Your task to perform on an android device: Do I have any events tomorrow? Image 0: 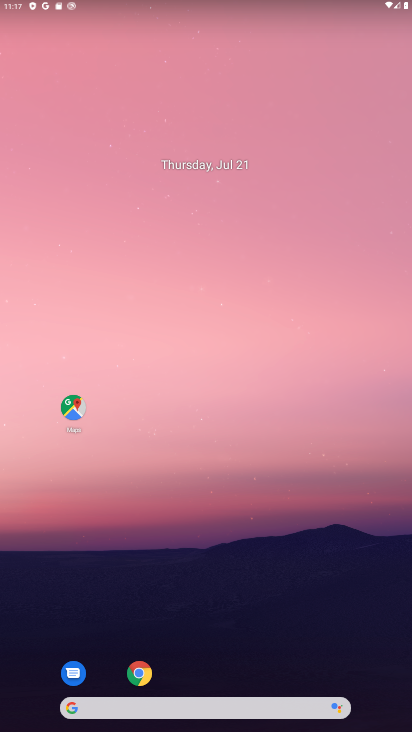
Step 0: drag from (213, 650) to (190, 78)
Your task to perform on an android device: Do I have any events tomorrow? Image 1: 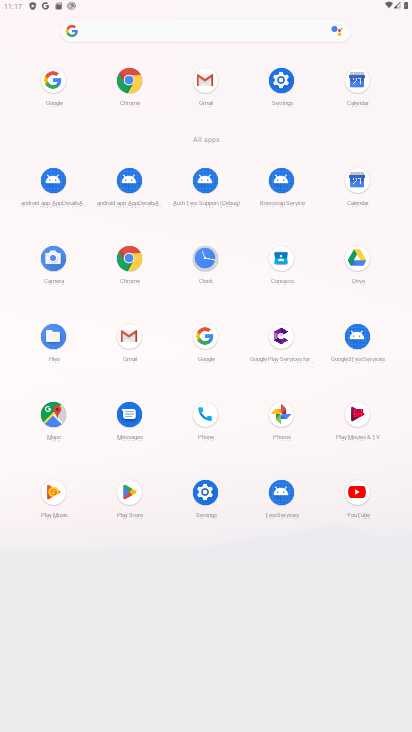
Step 1: click (352, 176)
Your task to perform on an android device: Do I have any events tomorrow? Image 2: 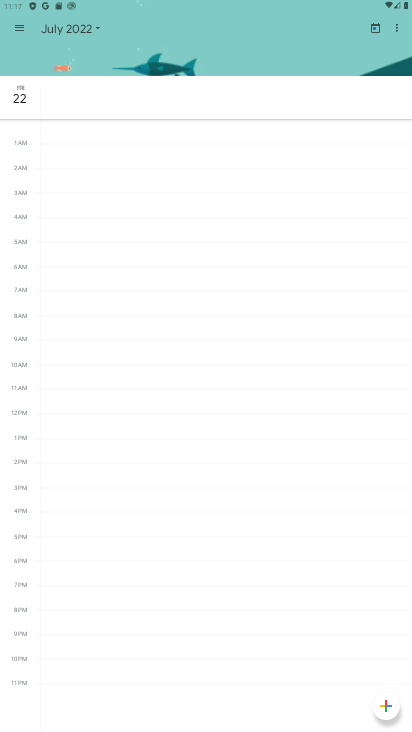
Step 2: click (18, 31)
Your task to perform on an android device: Do I have any events tomorrow? Image 3: 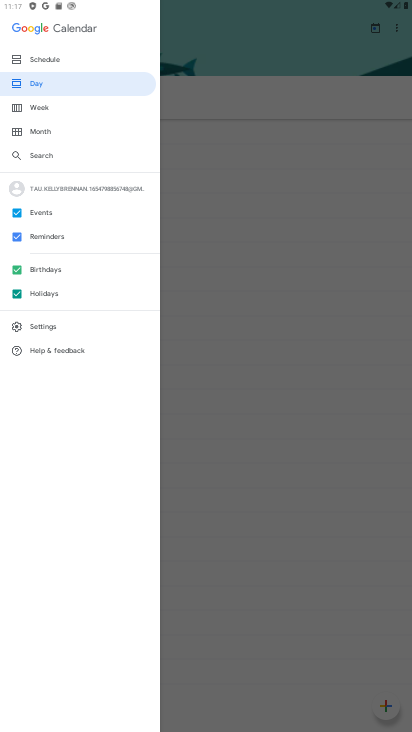
Step 3: click (15, 232)
Your task to perform on an android device: Do I have any events tomorrow? Image 4: 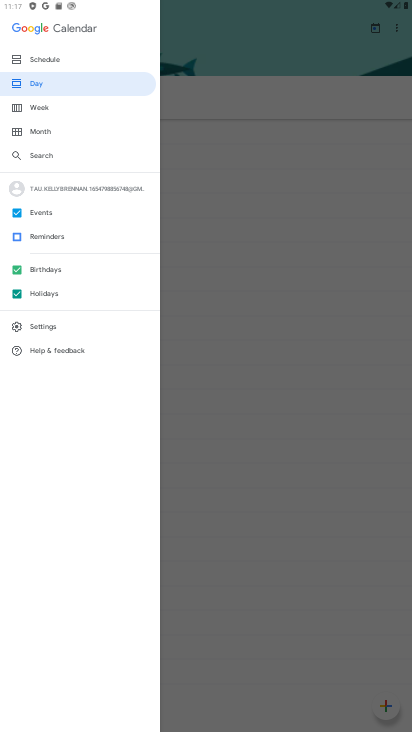
Step 4: click (14, 266)
Your task to perform on an android device: Do I have any events tomorrow? Image 5: 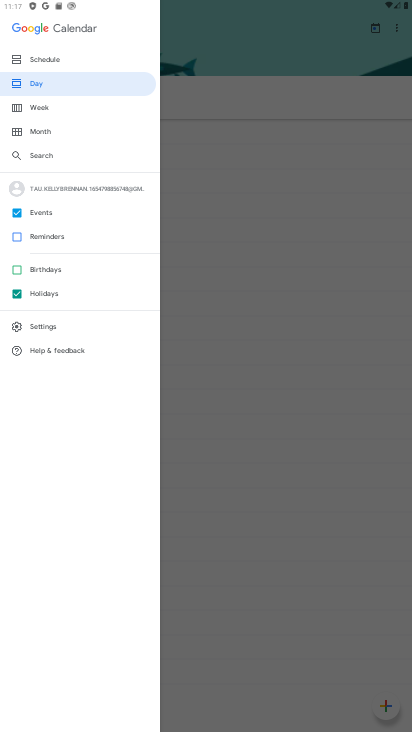
Step 5: click (16, 294)
Your task to perform on an android device: Do I have any events tomorrow? Image 6: 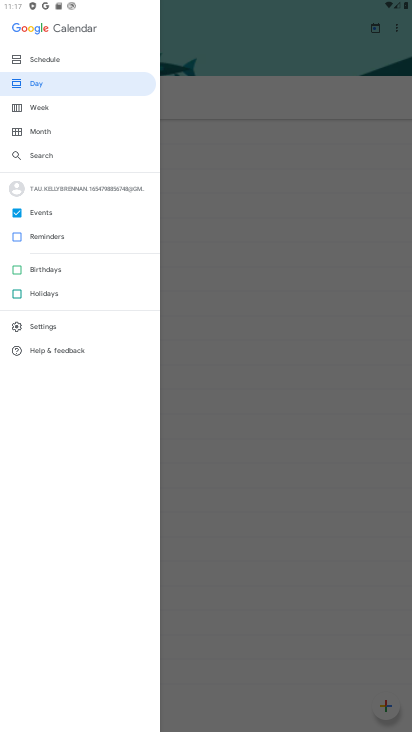
Step 6: click (35, 57)
Your task to perform on an android device: Do I have any events tomorrow? Image 7: 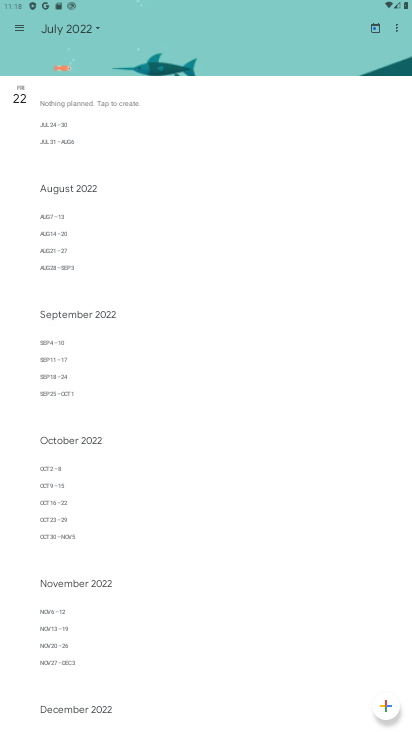
Step 7: click (22, 92)
Your task to perform on an android device: Do I have any events tomorrow? Image 8: 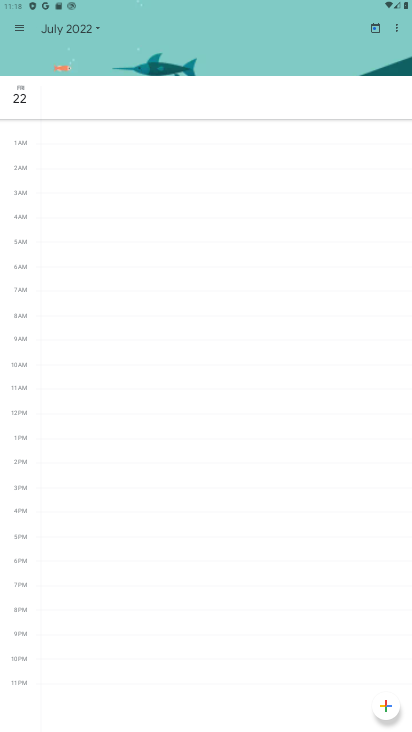
Step 8: click (25, 93)
Your task to perform on an android device: Do I have any events tomorrow? Image 9: 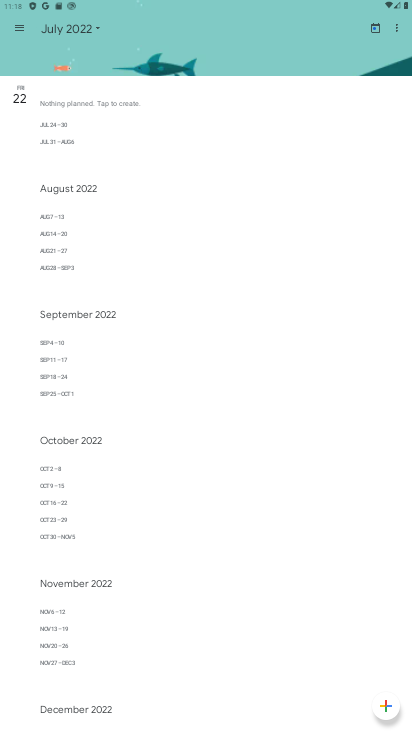
Step 9: click (25, 93)
Your task to perform on an android device: Do I have any events tomorrow? Image 10: 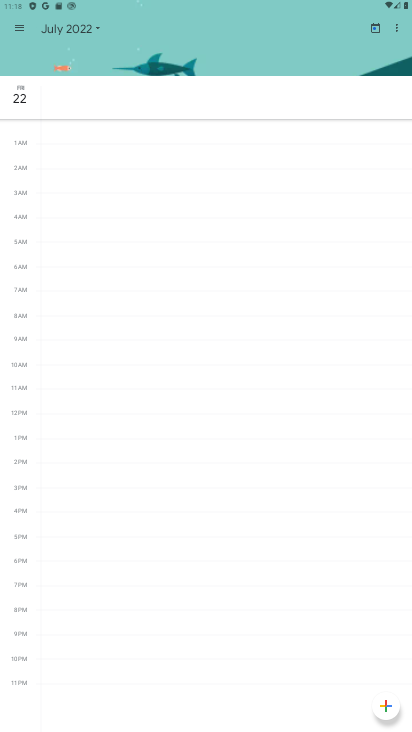
Step 10: task complete